Your task to perform on an android device: Search for sushi restaurants on Maps Image 0: 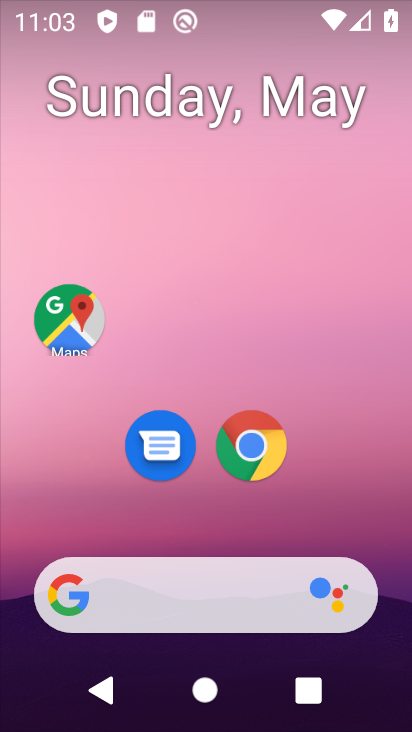
Step 0: click (79, 328)
Your task to perform on an android device: Search for sushi restaurants on Maps Image 1: 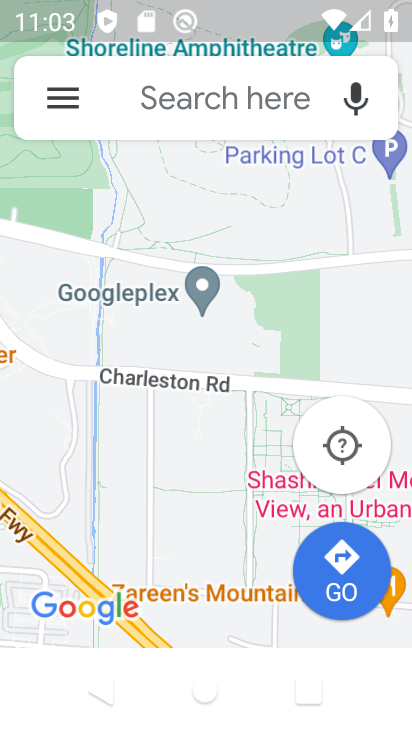
Step 1: click (201, 109)
Your task to perform on an android device: Search for sushi restaurants on Maps Image 2: 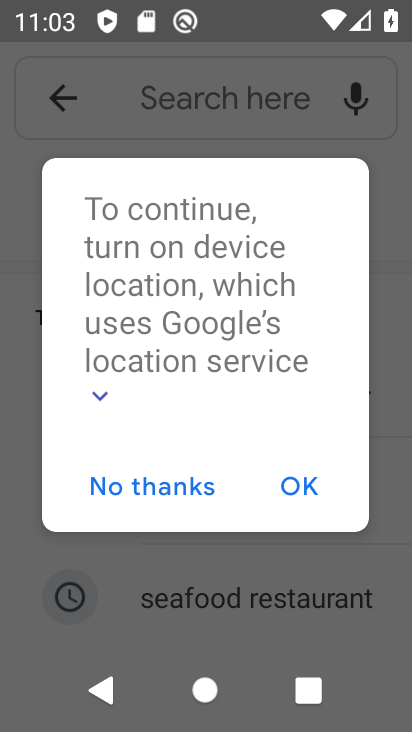
Step 2: click (189, 487)
Your task to perform on an android device: Search for sushi restaurants on Maps Image 3: 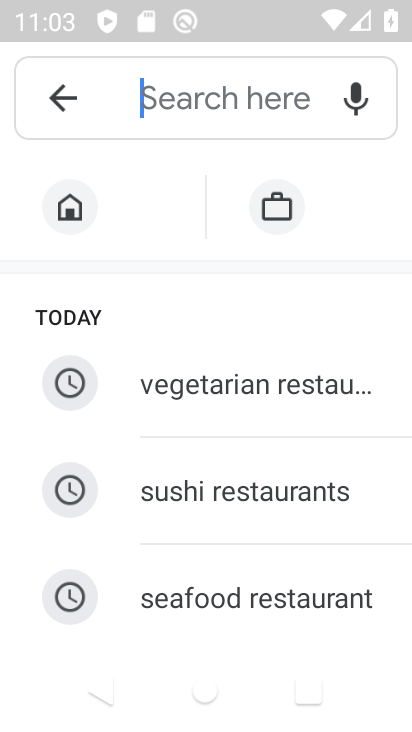
Step 3: click (221, 490)
Your task to perform on an android device: Search for sushi restaurants on Maps Image 4: 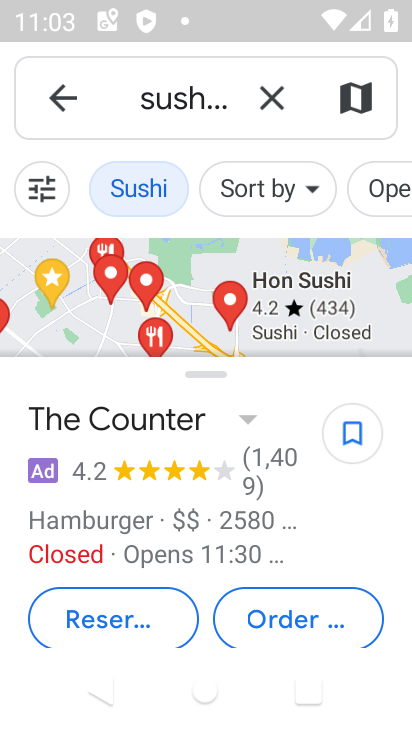
Step 4: task complete